Your task to perform on an android device: Turn off the flashlight Image 0: 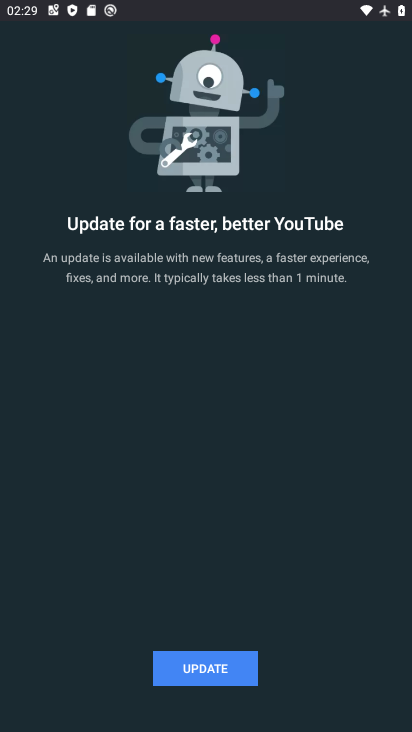
Step 0: press home button
Your task to perform on an android device: Turn off the flashlight Image 1: 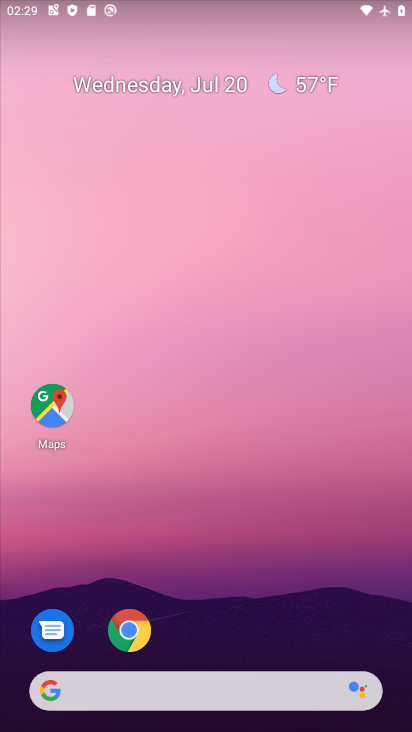
Step 1: drag from (213, 281) to (227, 132)
Your task to perform on an android device: Turn off the flashlight Image 2: 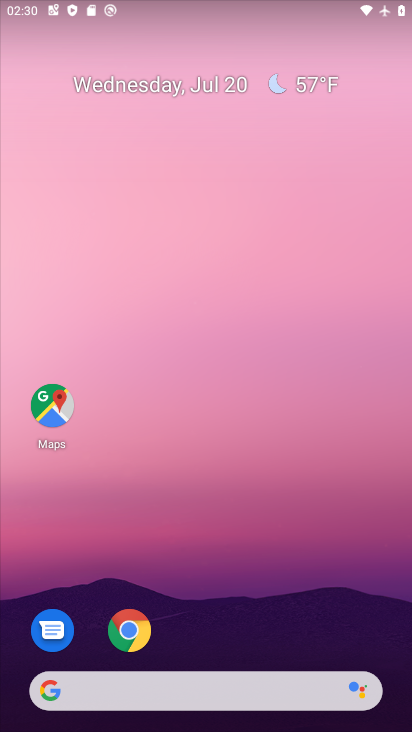
Step 2: drag from (291, 539) to (283, 11)
Your task to perform on an android device: Turn off the flashlight Image 3: 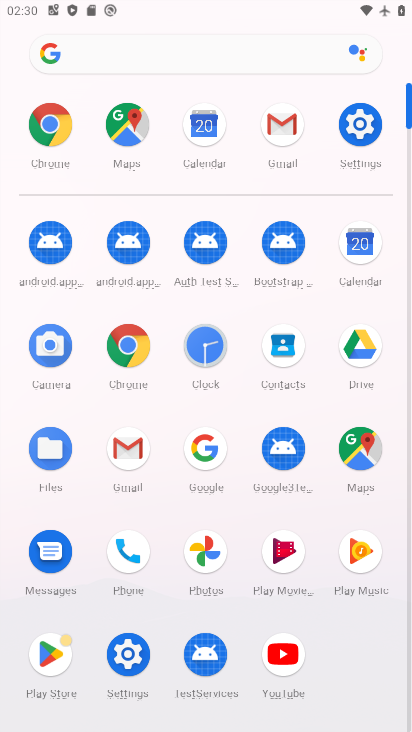
Step 3: click (361, 125)
Your task to perform on an android device: Turn off the flashlight Image 4: 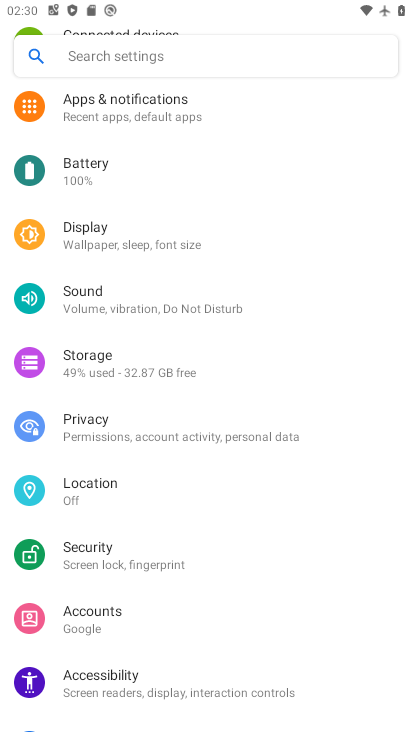
Step 4: click (120, 236)
Your task to perform on an android device: Turn off the flashlight Image 5: 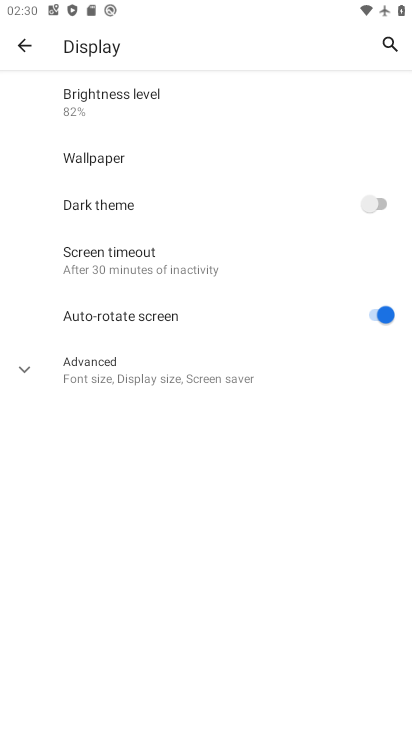
Step 5: click (130, 264)
Your task to perform on an android device: Turn off the flashlight Image 6: 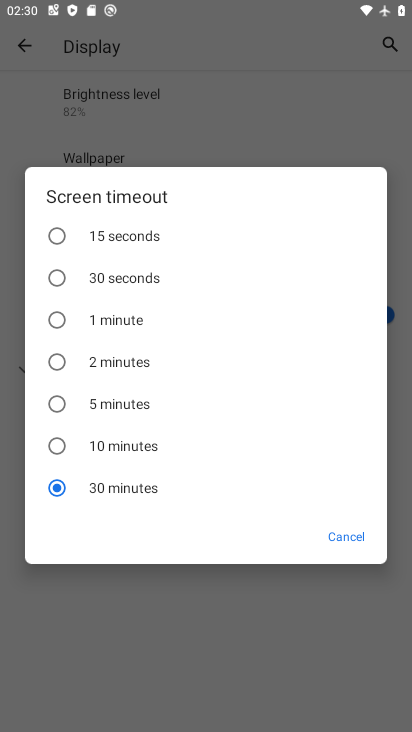
Step 6: task complete